Your task to perform on an android device: Search for "logitech g pro" on amazon, select the first entry, and add it to the cart. Image 0: 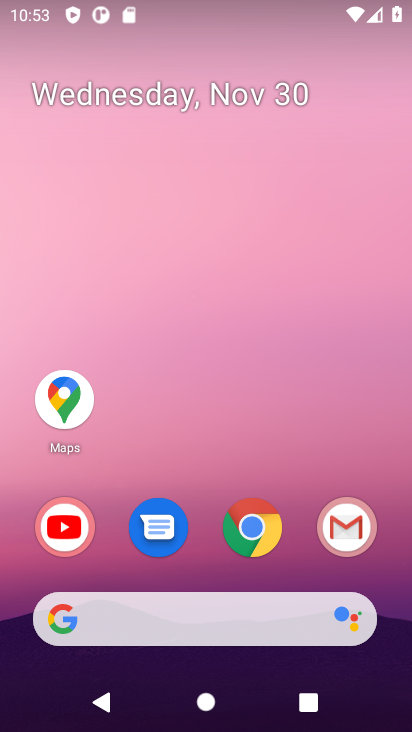
Step 0: click (255, 533)
Your task to perform on an android device: Search for "logitech g pro" on amazon, select the first entry, and add it to the cart. Image 1: 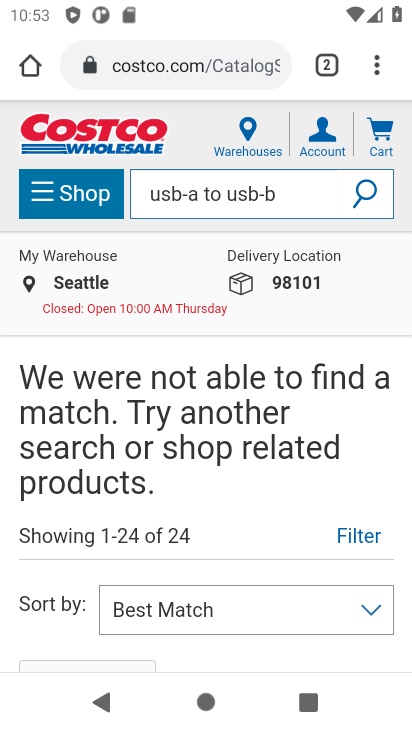
Step 1: click (166, 69)
Your task to perform on an android device: Search for "logitech g pro" on amazon, select the first entry, and add it to the cart. Image 2: 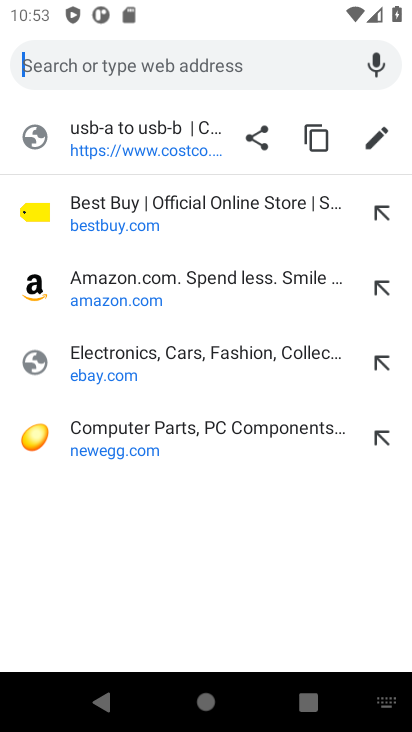
Step 2: click (92, 286)
Your task to perform on an android device: Search for "logitech g pro" on amazon, select the first entry, and add it to the cart. Image 3: 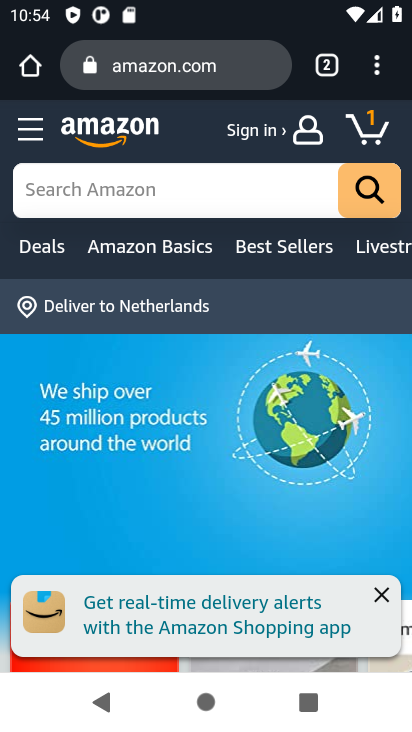
Step 3: click (70, 180)
Your task to perform on an android device: Search for "logitech g pro" on amazon, select the first entry, and add it to the cart. Image 4: 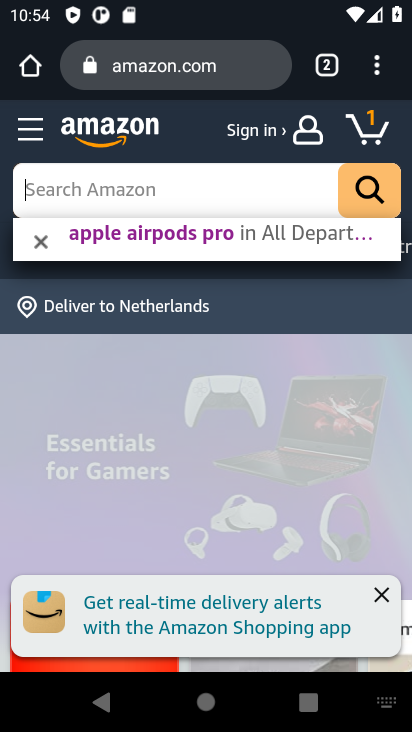
Step 4: type "logitech g pro"
Your task to perform on an android device: Search for "logitech g pro" on amazon, select the first entry, and add it to the cart. Image 5: 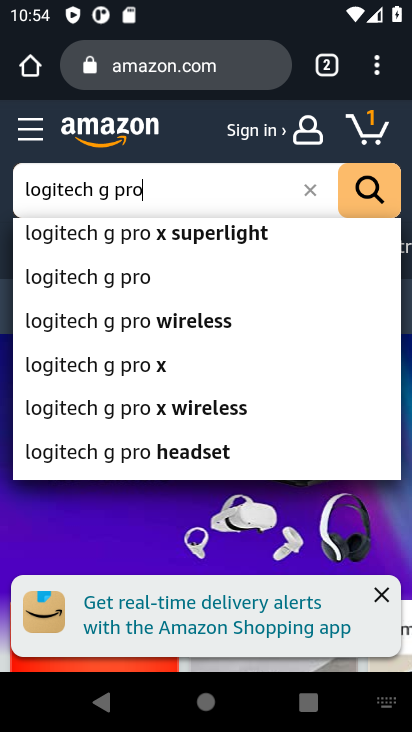
Step 5: click (115, 281)
Your task to perform on an android device: Search for "logitech g pro" on amazon, select the first entry, and add it to the cart. Image 6: 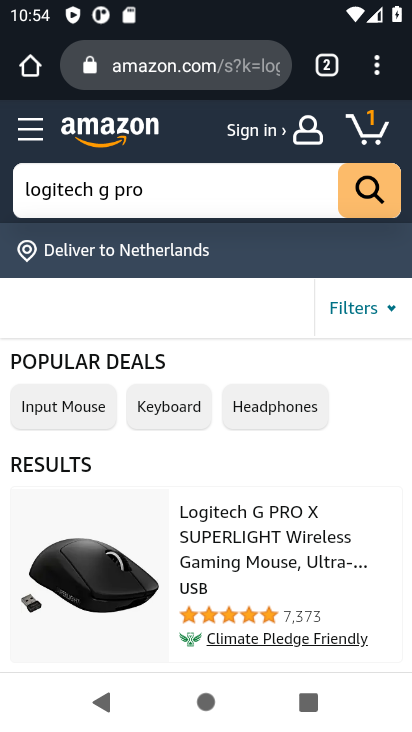
Step 6: drag from (153, 499) to (158, 283)
Your task to perform on an android device: Search for "logitech g pro" on amazon, select the first entry, and add it to the cart. Image 7: 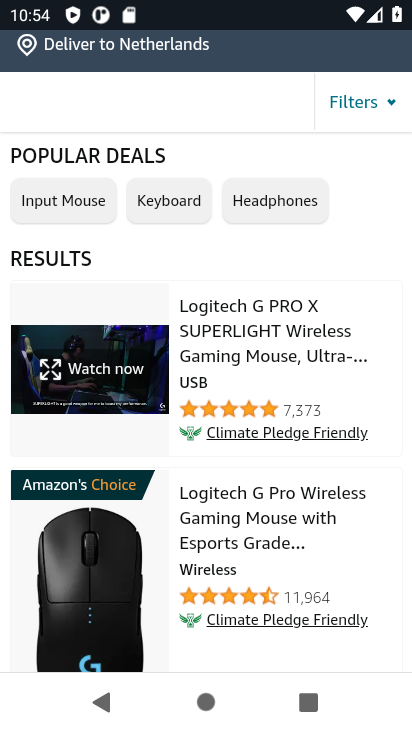
Step 7: click (242, 342)
Your task to perform on an android device: Search for "logitech g pro" on amazon, select the first entry, and add it to the cart. Image 8: 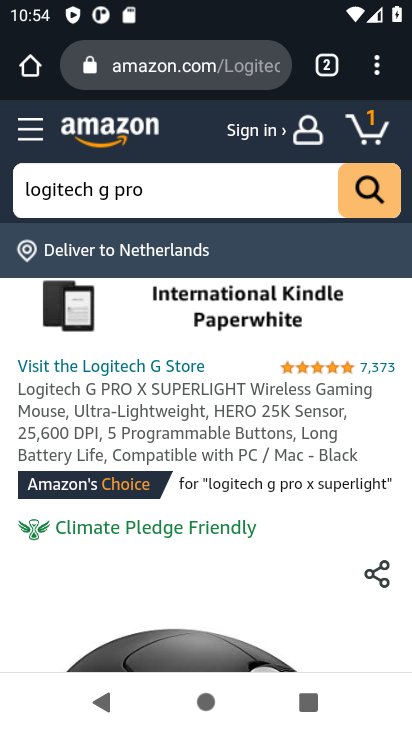
Step 8: task complete